Your task to perform on an android device: turn on sleep mode Image 0: 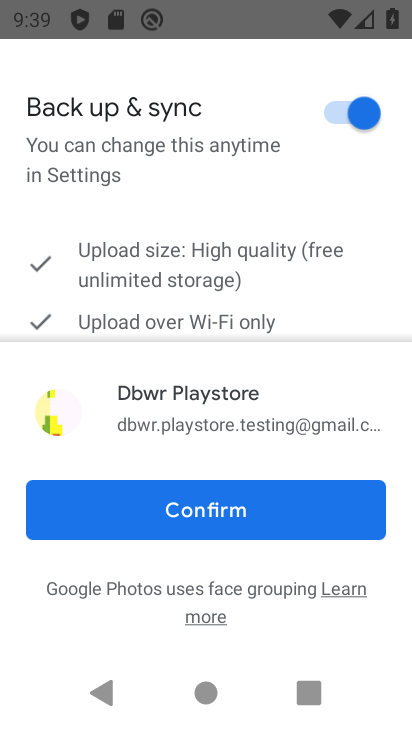
Step 0: press home button
Your task to perform on an android device: turn on sleep mode Image 1: 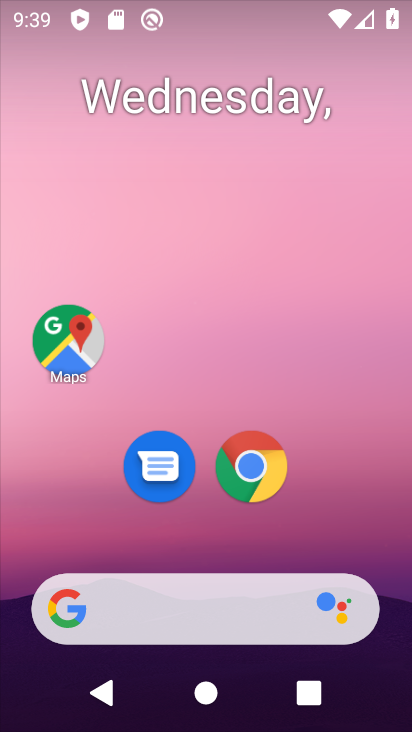
Step 1: drag from (343, 552) to (310, 77)
Your task to perform on an android device: turn on sleep mode Image 2: 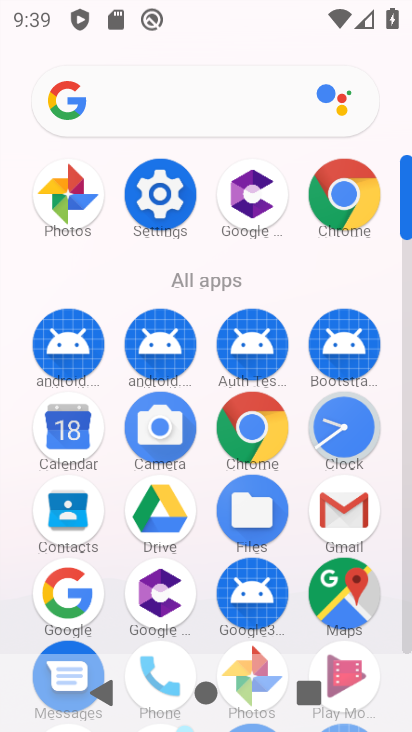
Step 2: click (177, 191)
Your task to perform on an android device: turn on sleep mode Image 3: 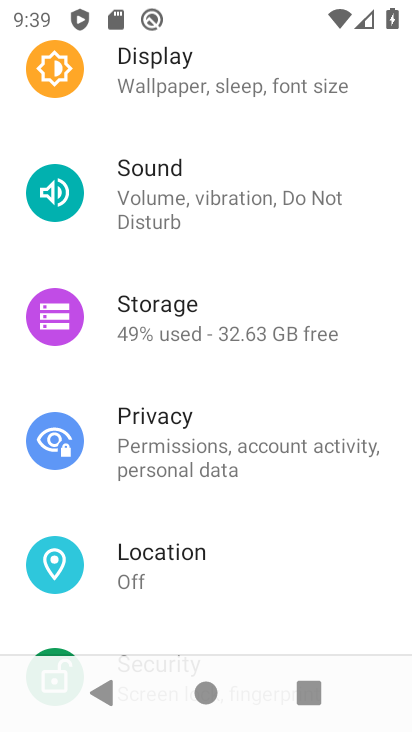
Step 3: drag from (238, 220) to (233, 572)
Your task to perform on an android device: turn on sleep mode Image 4: 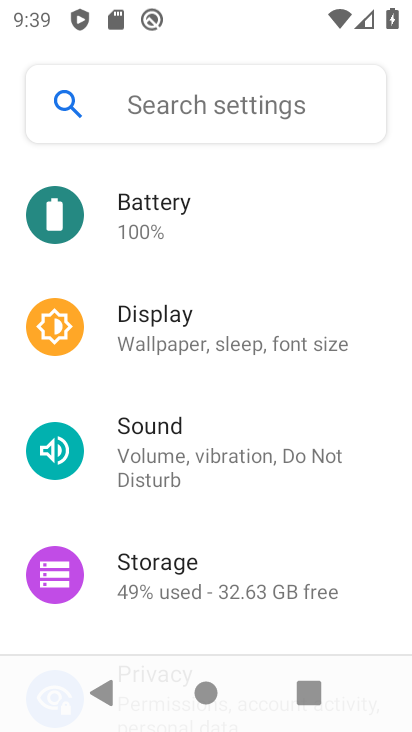
Step 4: drag from (238, 565) to (253, 180)
Your task to perform on an android device: turn on sleep mode Image 5: 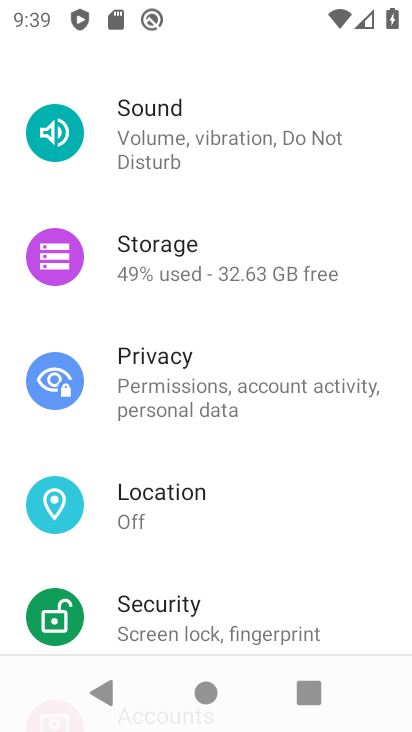
Step 5: drag from (192, 123) to (291, 498)
Your task to perform on an android device: turn on sleep mode Image 6: 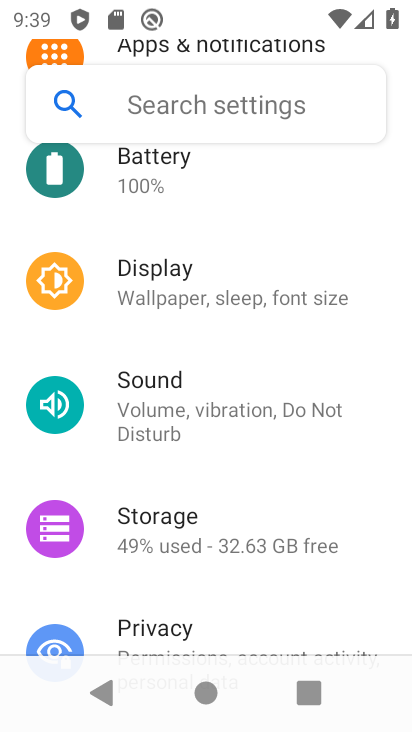
Step 6: click (174, 284)
Your task to perform on an android device: turn on sleep mode Image 7: 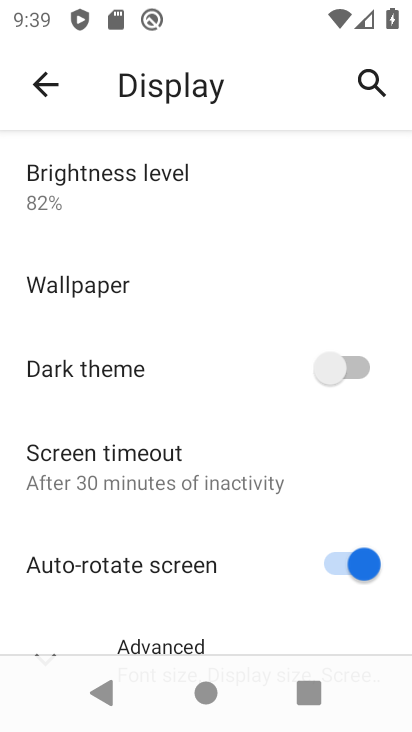
Step 7: drag from (175, 536) to (187, 151)
Your task to perform on an android device: turn on sleep mode Image 8: 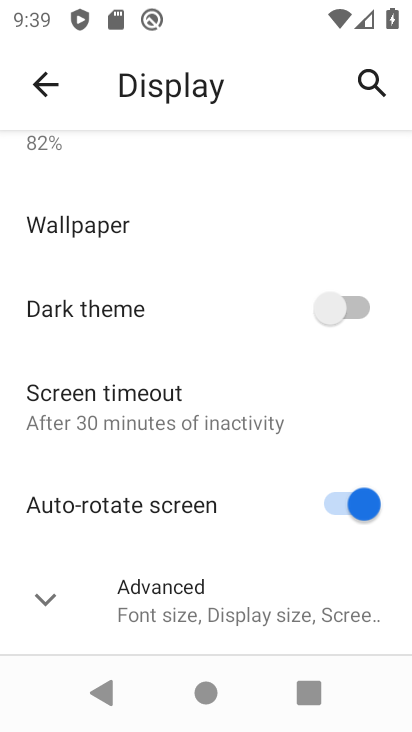
Step 8: click (120, 435)
Your task to perform on an android device: turn on sleep mode Image 9: 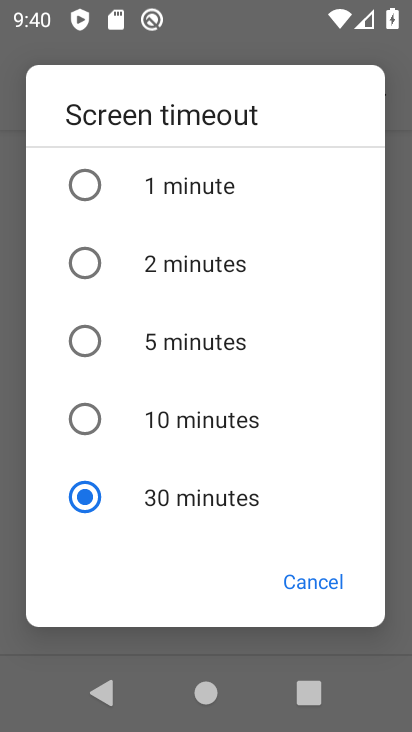
Step 9: task complete